Your task to perform on an android device: Open the Play Movies app and select the watchlist tab. Image 0: 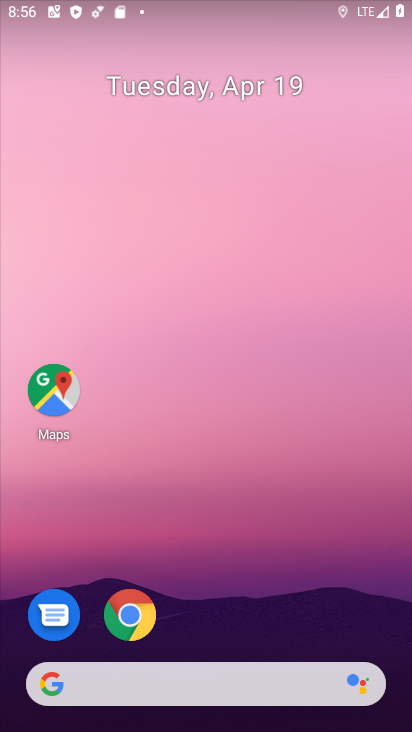
Step 0: drag from (295, 639) to (309, 140)
Your task to perform on an android device: Open the Play Movies app and select the watchlist tab. Image 1: 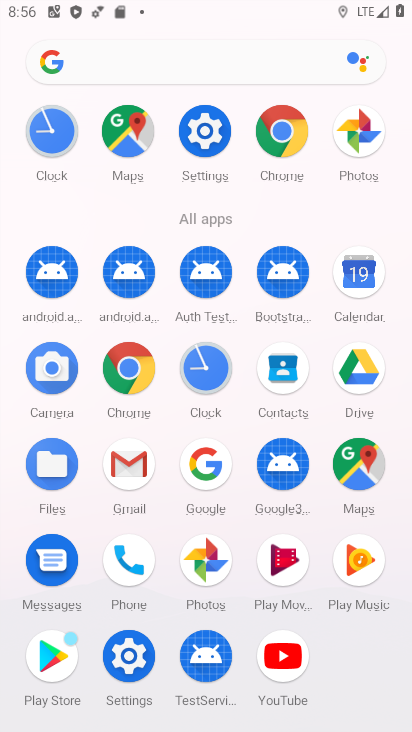
Step 1: click (281, 573)
Your task to perform on an android device: Open the Play Movies app and select the watchlist tab. Image 2: 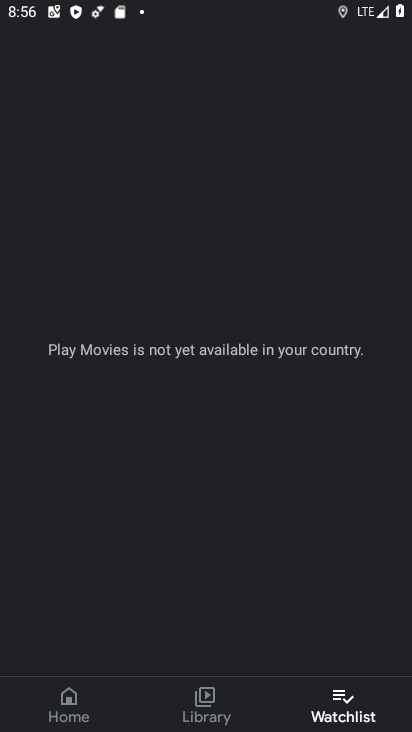
Step 2: task complete